Your task to perform on an android device: turn off priority inbox in the gmail app Image 0: 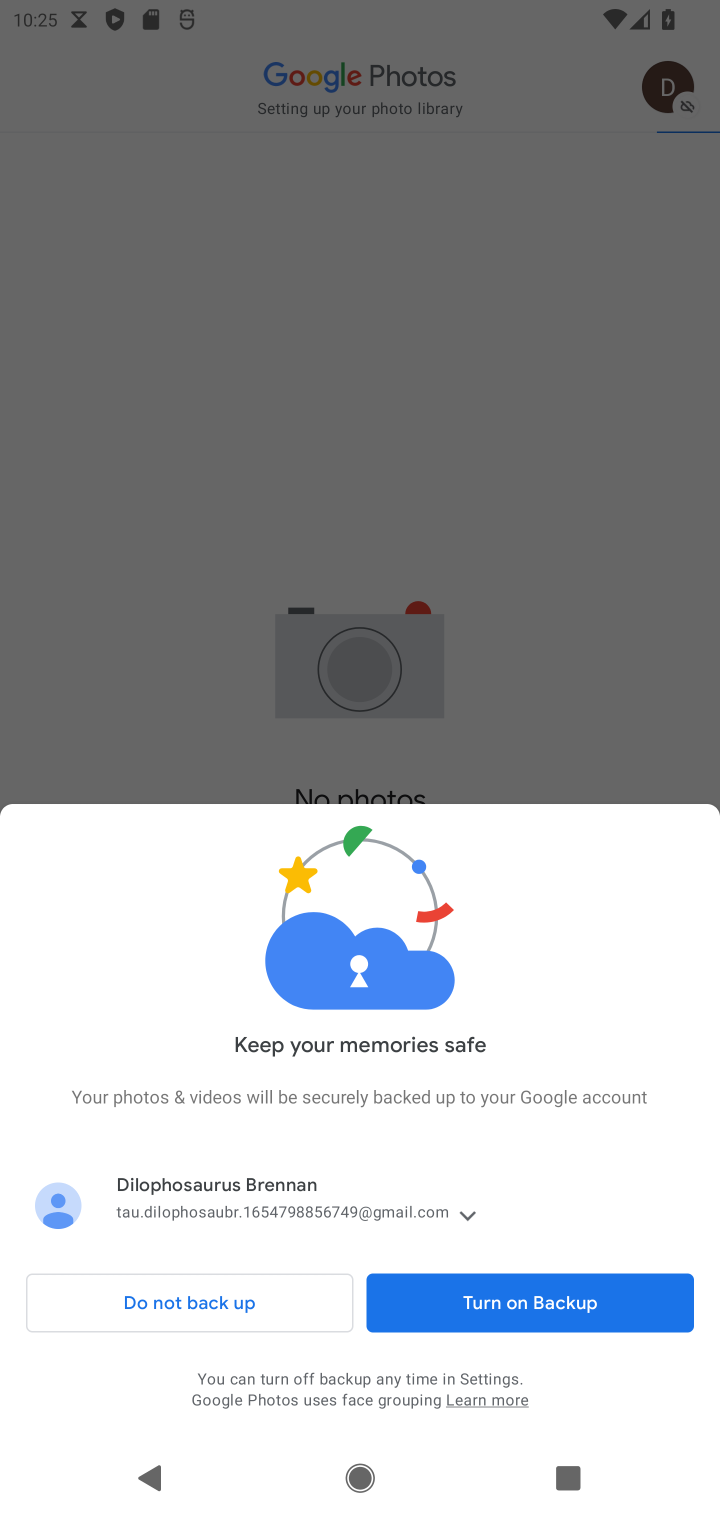
Step 0: press back button
Your task to perform on an android device: turn off priority inbox in the gmail app Image 1: 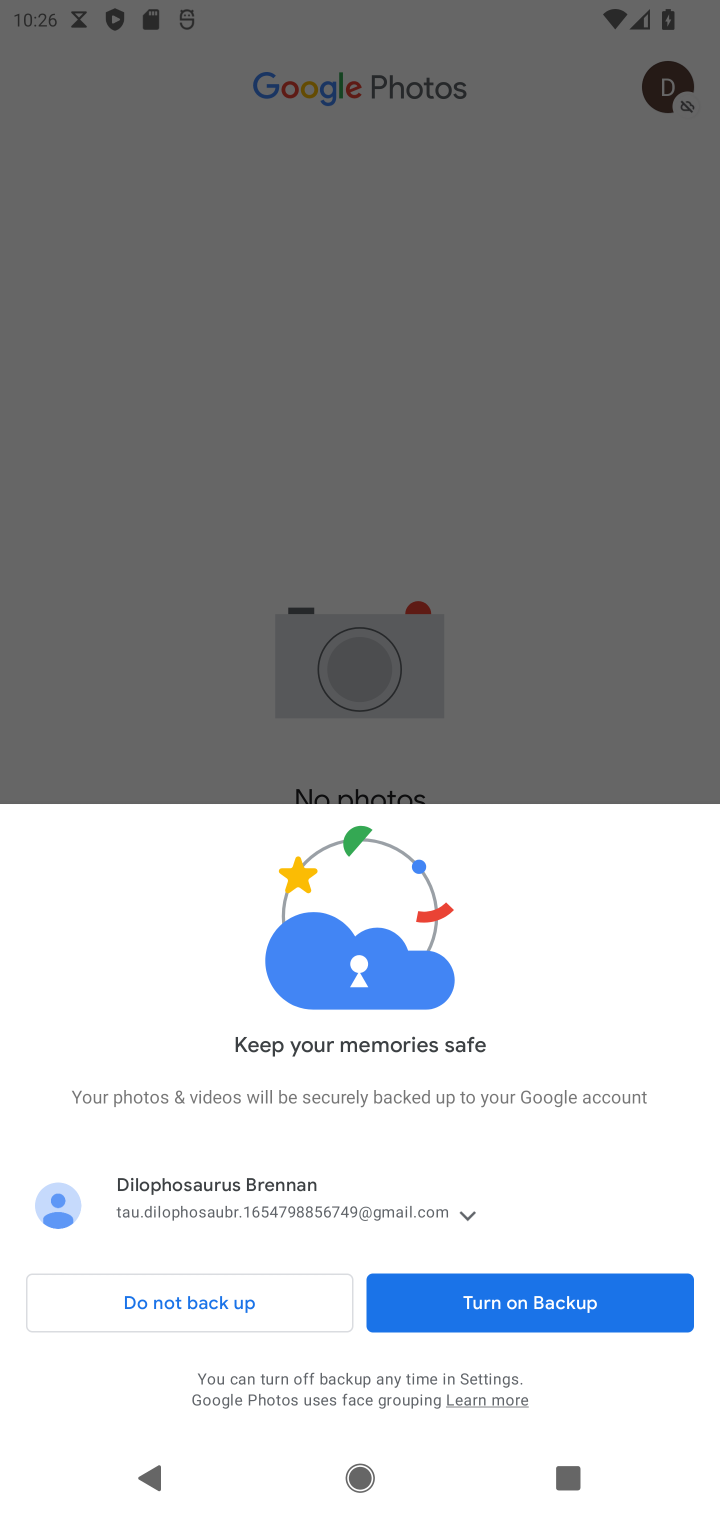
Step 1: press back button
Your task to perform on an android device: turn off priority inbox in the gmail app Image 2: 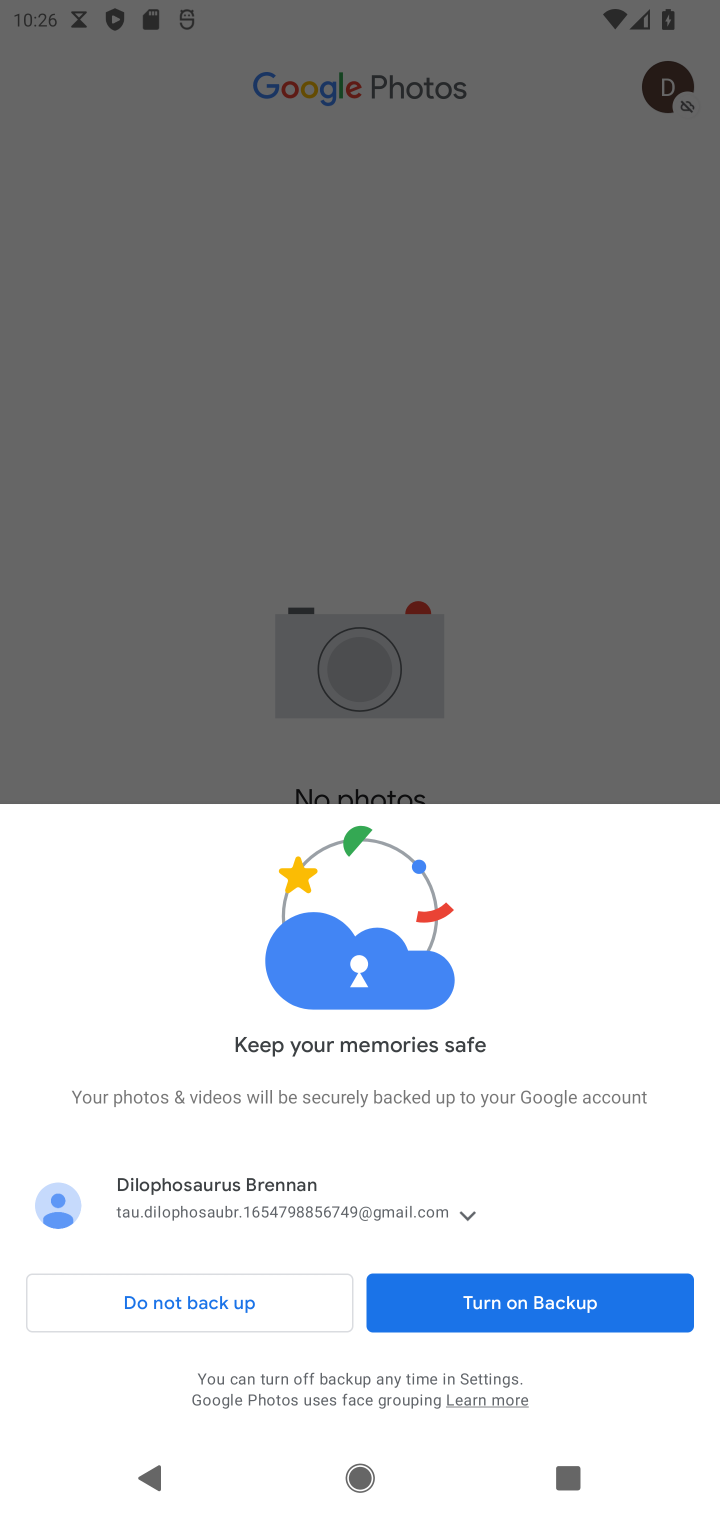
Step 2: press home button
Your task to perform on an android device: turn off priority inbox in the gmail app Image 3: 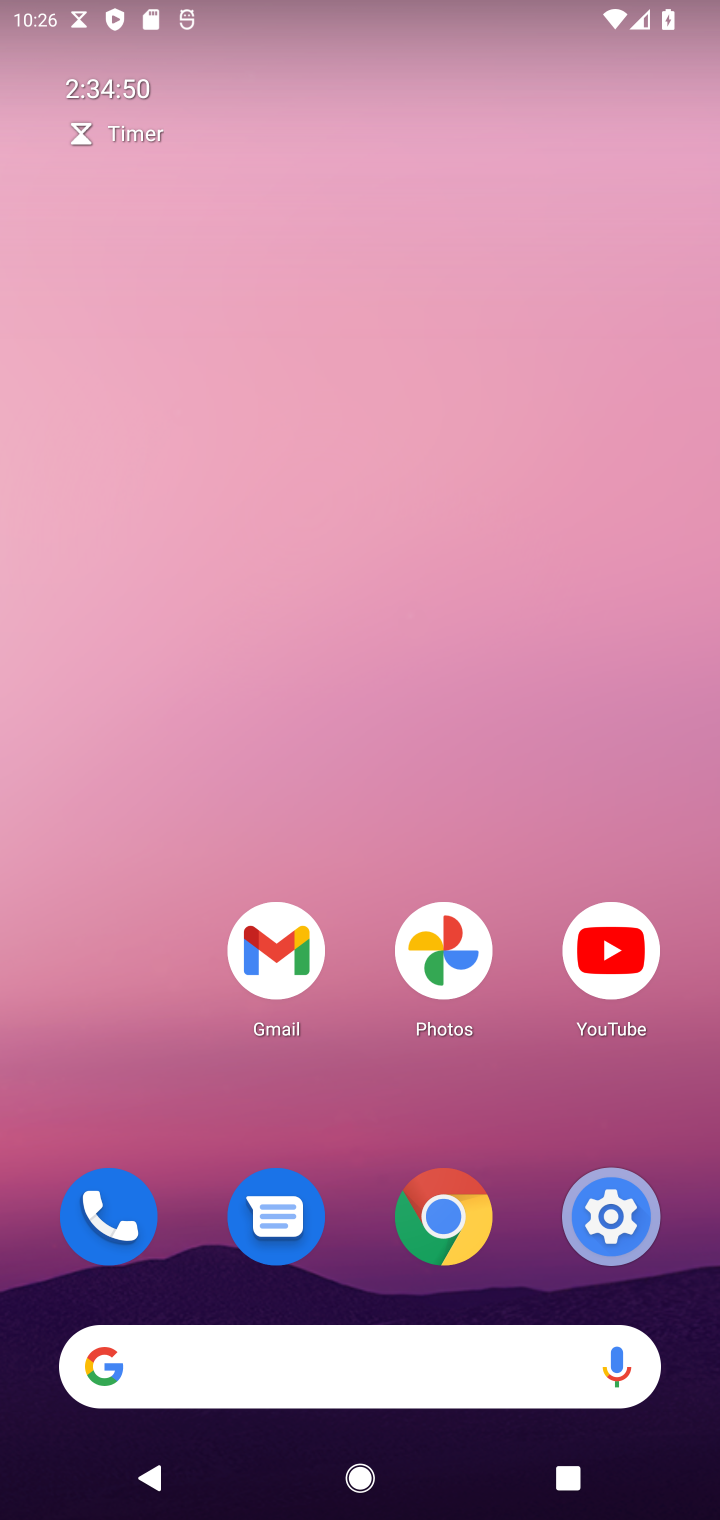
Step 3: drag from (385, 1291) to (647, 26)
Your task to perform on an android device: turn off priority inbox in the gmail app Image 4: 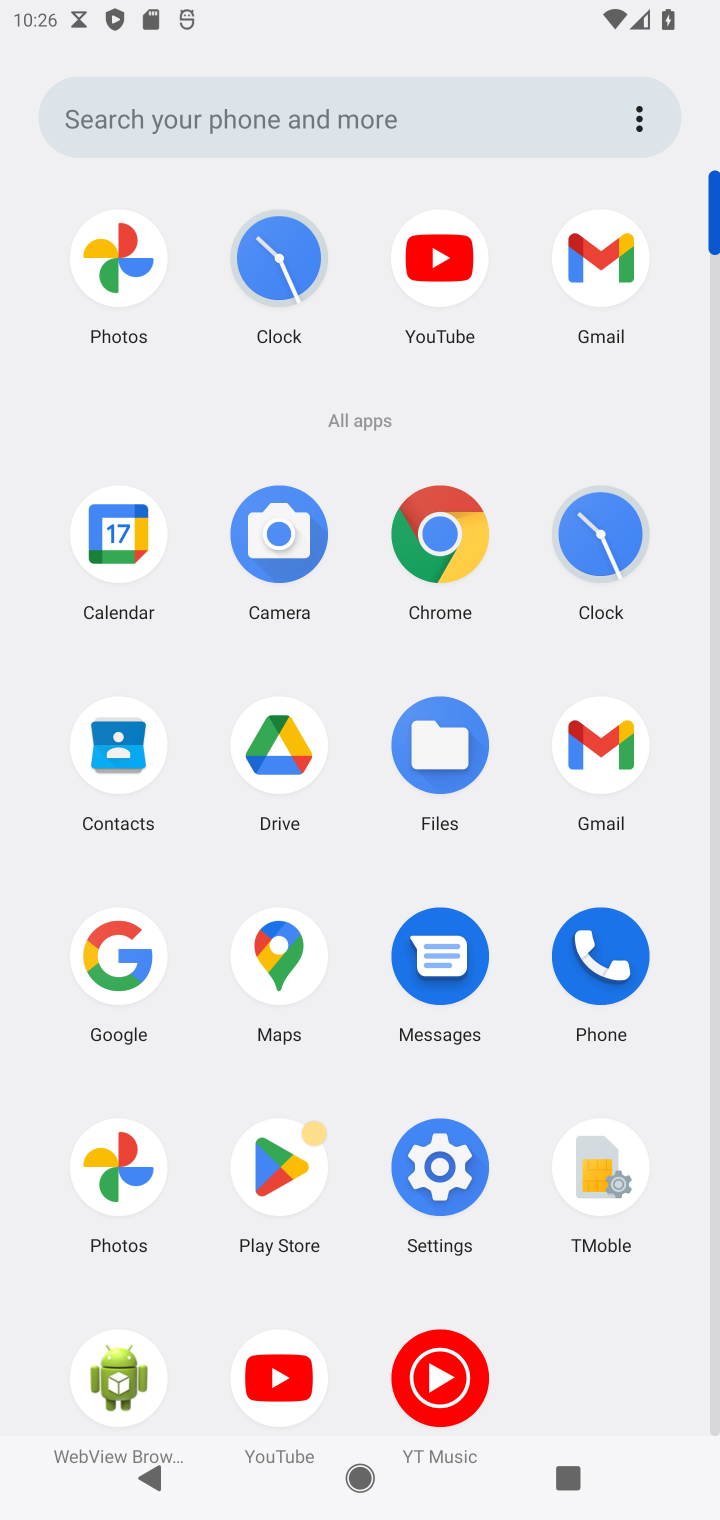
Step 4: click (605, 206)
Your task to perform on an android device: turn off priority inbox in the gmail app Image 5: 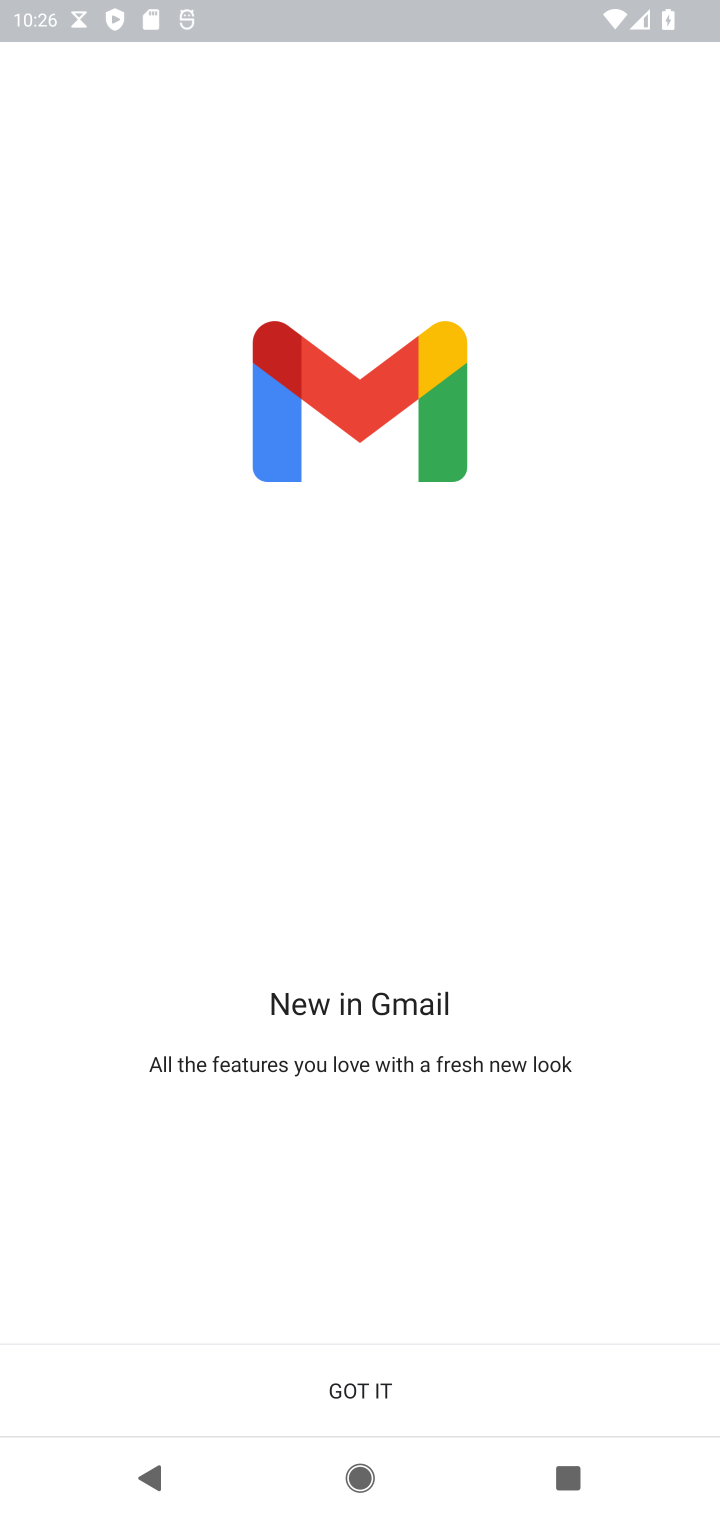
Step 5: click (356, 1347)
Your task to perform on an android device: turn off priority inbox in the gmail app Image 6: 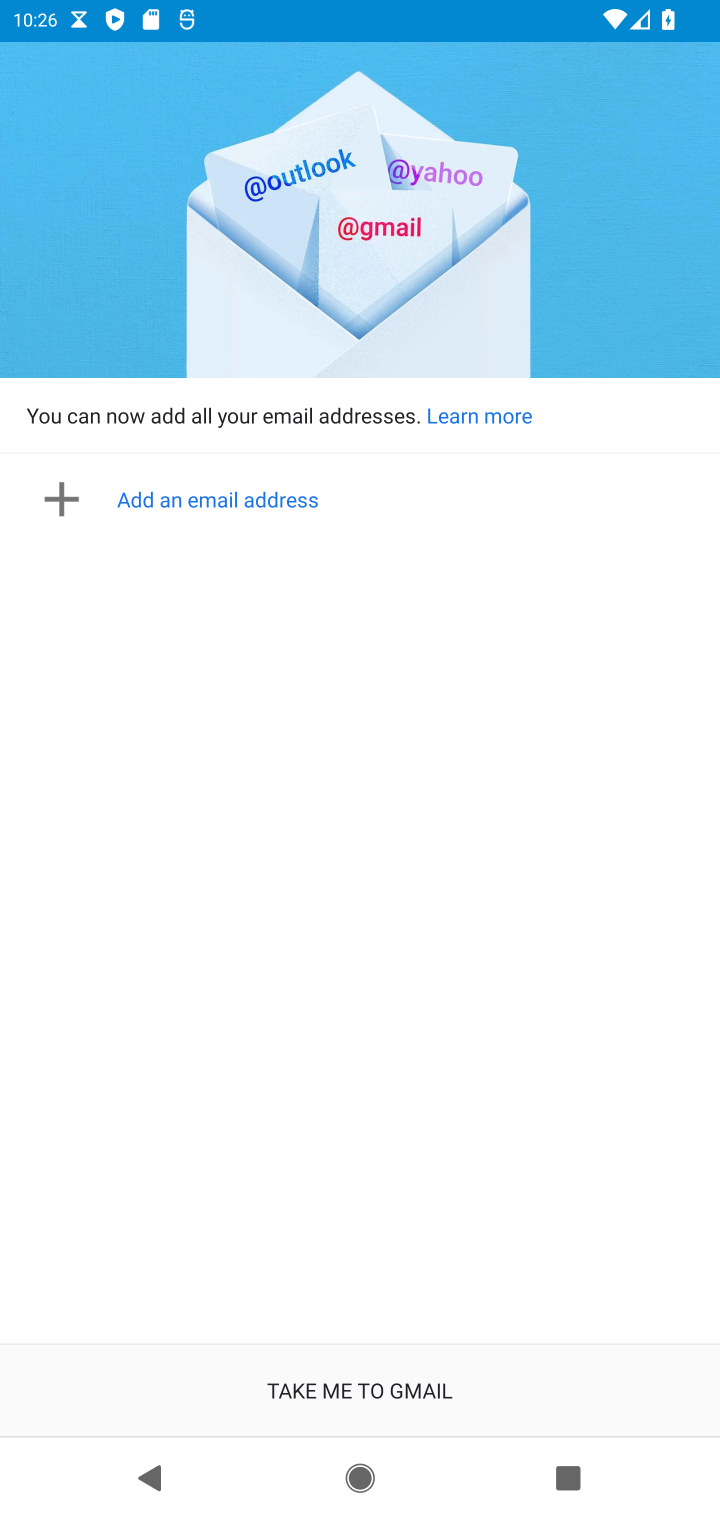
Step 6: click (353, 1351)
Your task to perform on an android device: turn off priority inbox in the gmail app Image 7: 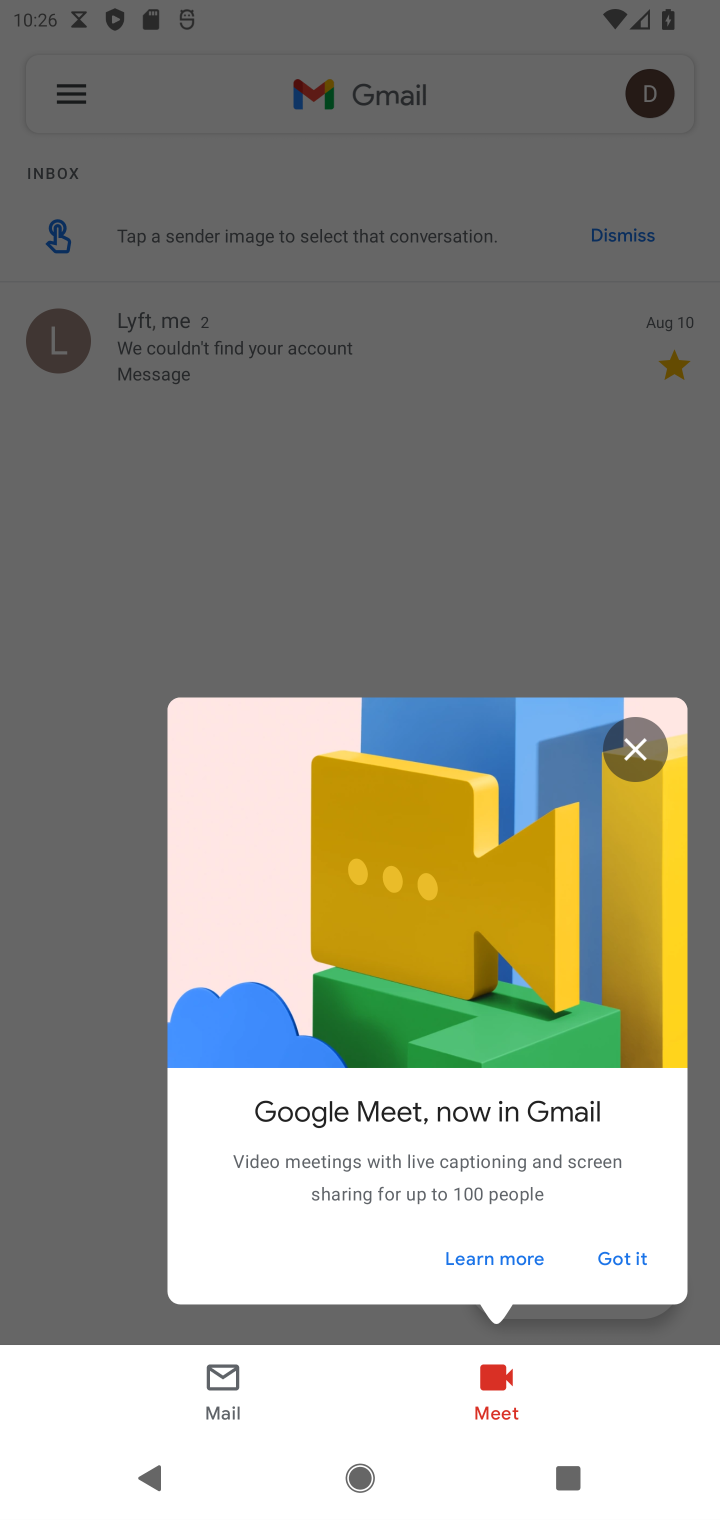
Step 7: click (646, 749)
Your task to perform on an android device: turn off priority inbox in the gmail app Image 8: 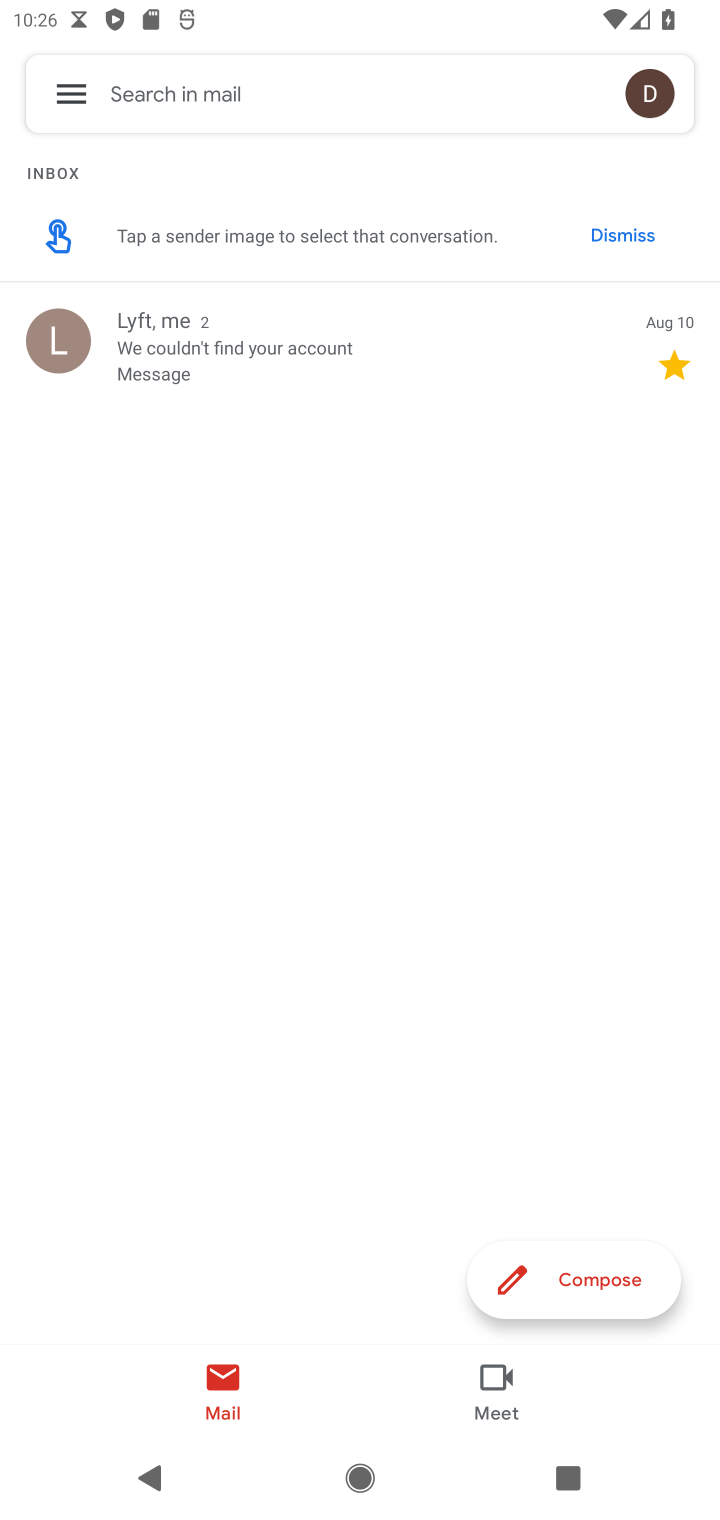
Step 8: click (64, 83)
Your task to perform on an android device: turn off priority inbox in the gmail app Image 9: 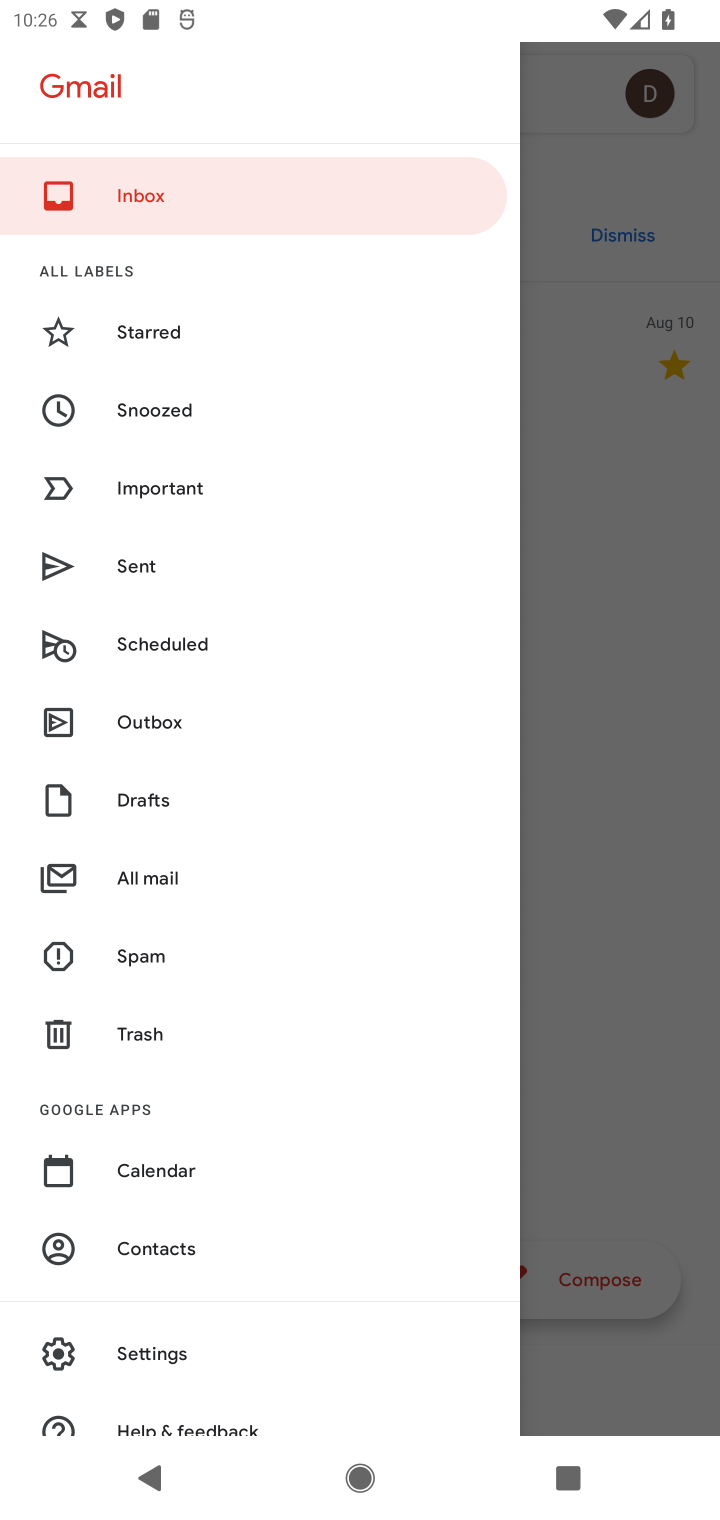
Step 9: click (204, 1339)
Your task to perform on an android device: turn off priority inbox in the gmail app Image 10: 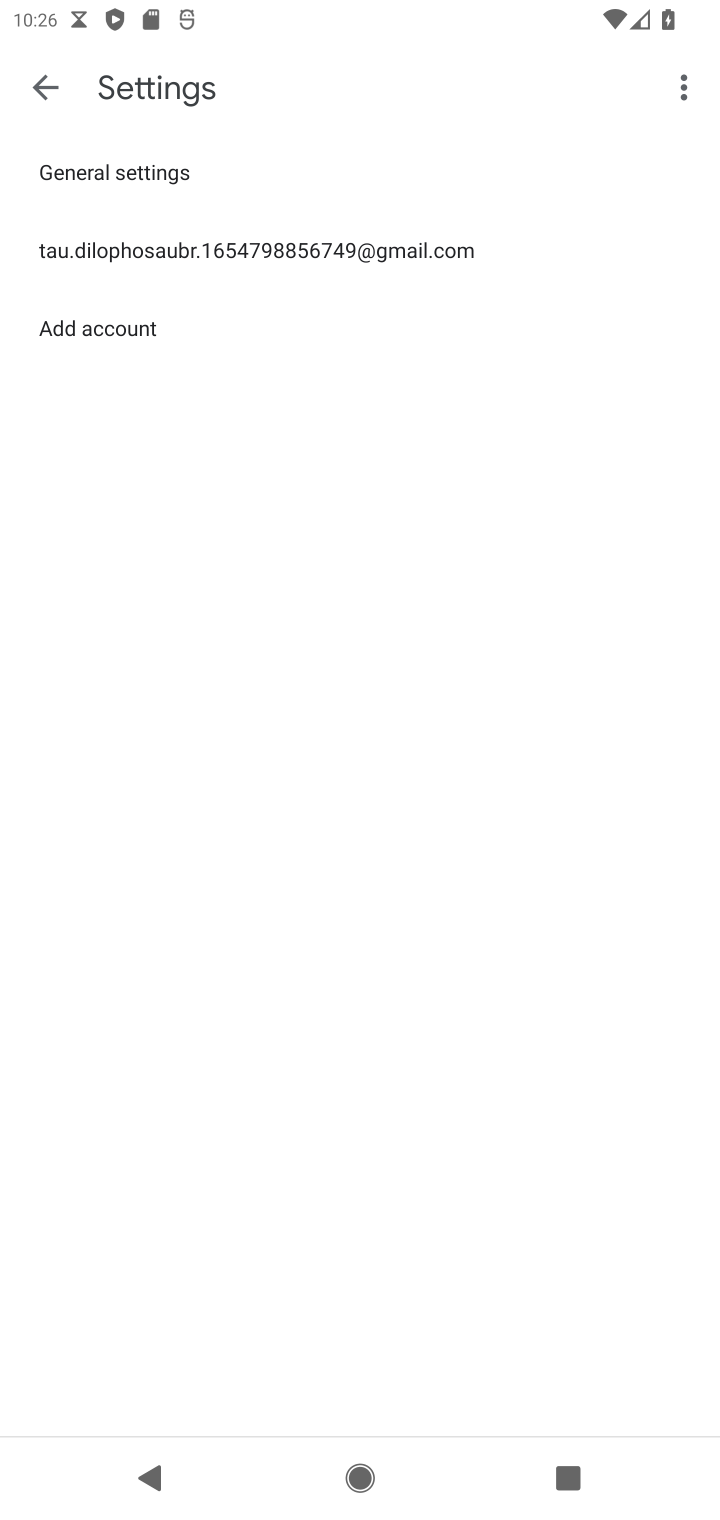
Step 10: click (123, 261)
Your task to perform on an android device: turn off priority inbox in the gmail app Image 11: 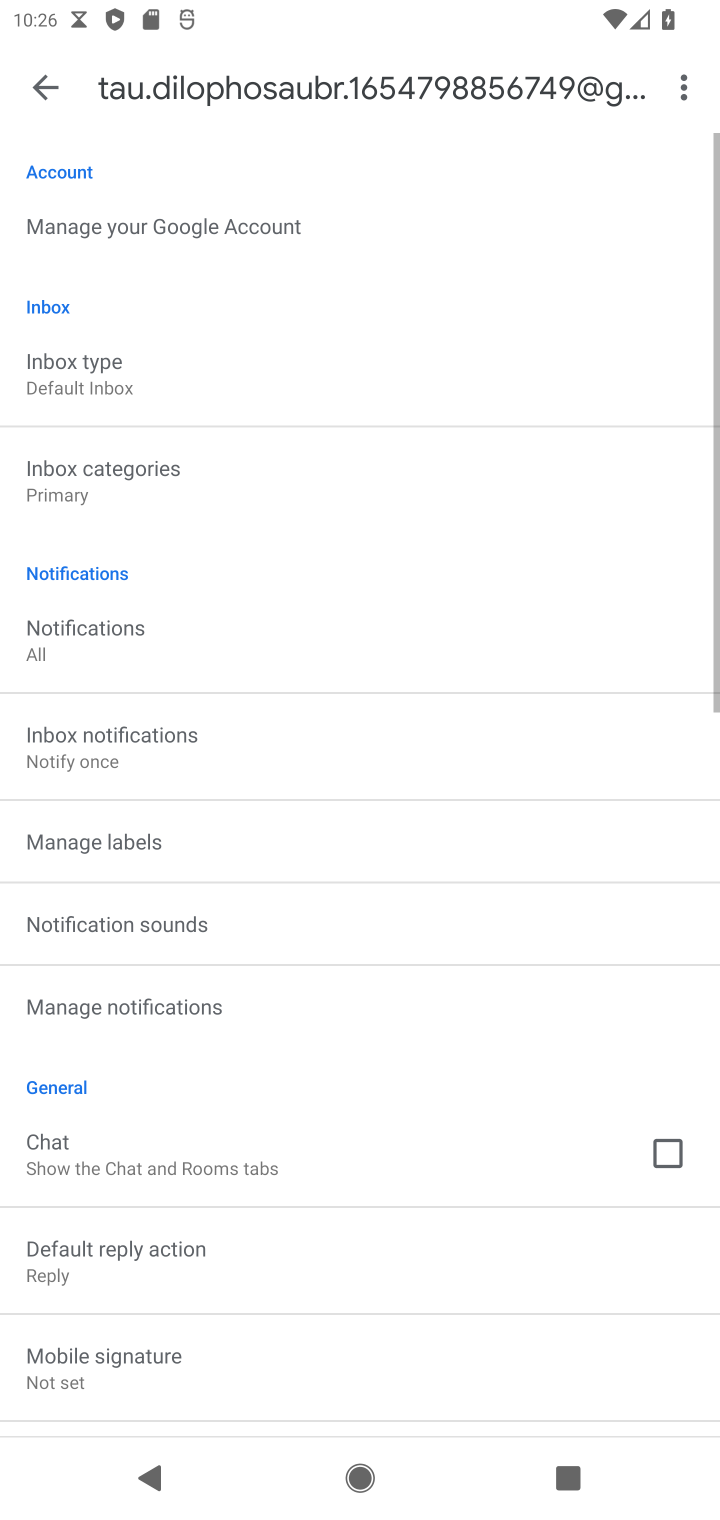
Step 11: click (77, 355)
Your task to perform on an android device: turn off priority inbox in the gmail app Image 12: 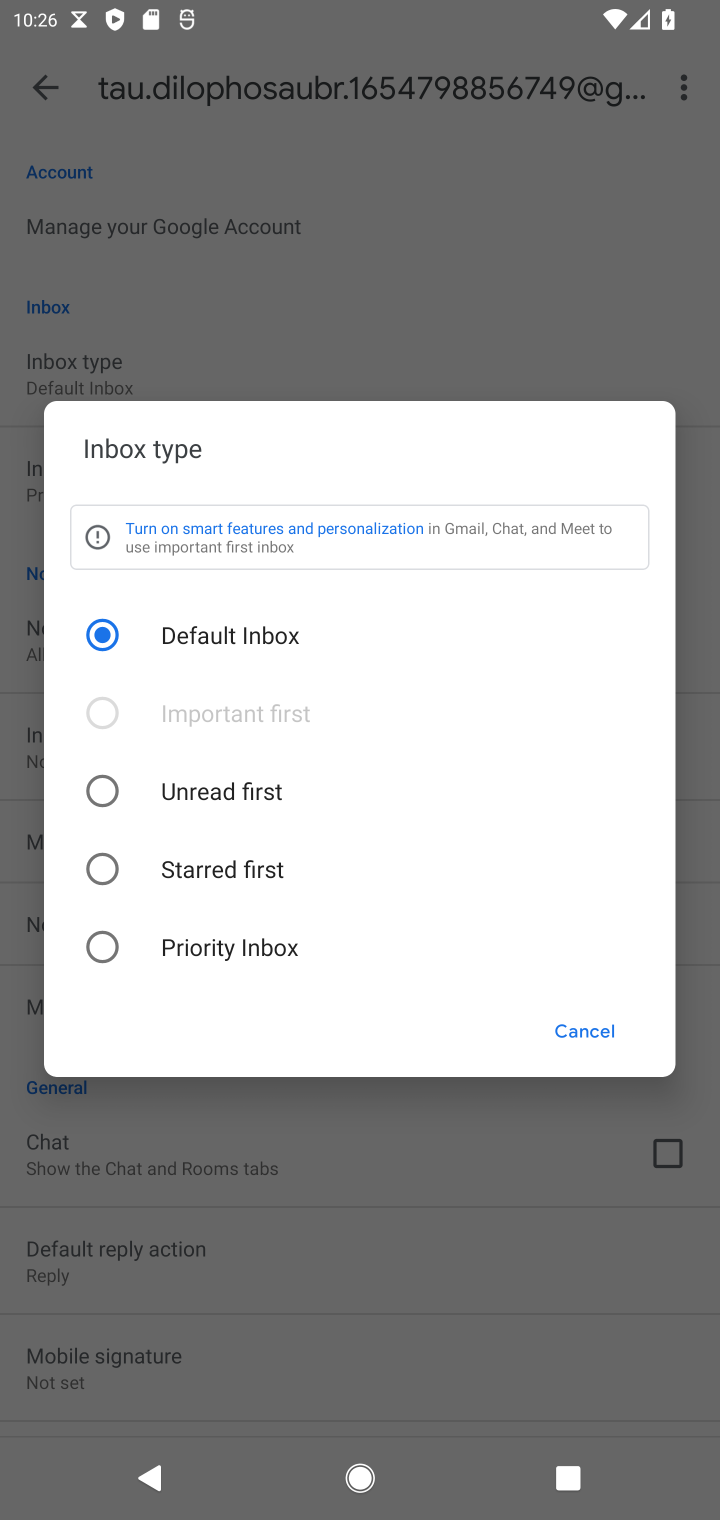
Step 12: task complete